Your task to perform on an android device: Show me productivity apps on the Play Store Image 0: 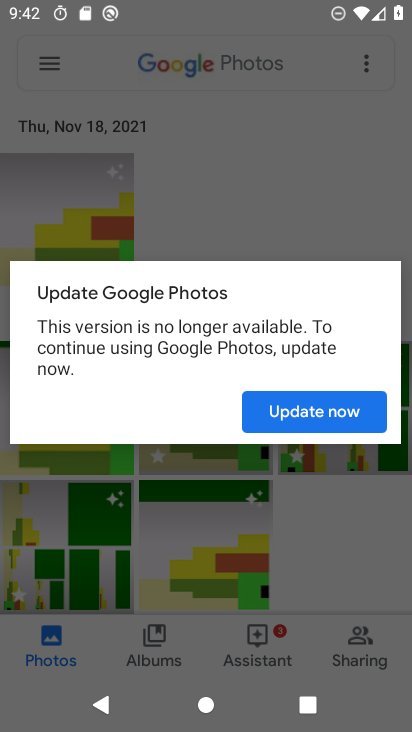
Step 0: press home button
Your task to perform on an android device: Show me productivity apps on the Play Store Image 1: 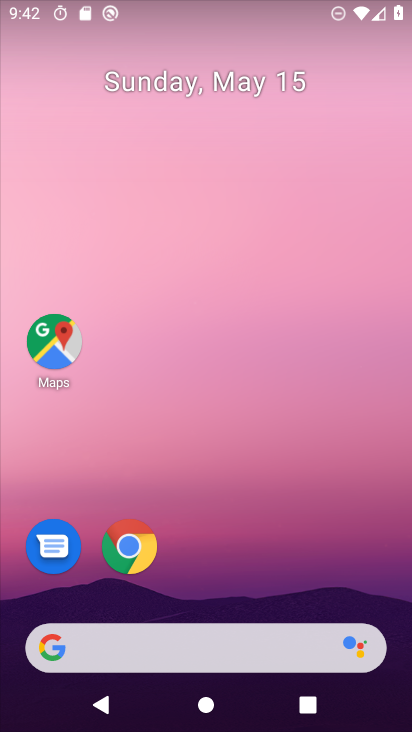
Step 1: drag from (258, 540) to (246, 78)
Your task to perform on an android device: Show me productivity apps on the Play Store Image 2: 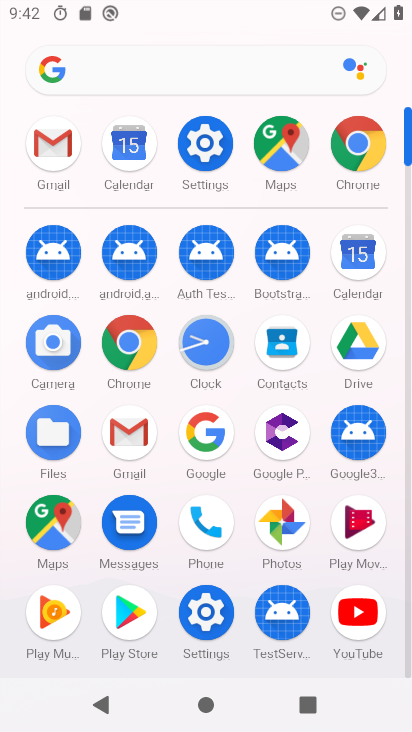
Step 2: click (132, 622)
Your task to perform on an android device: Show me productivity apps on the Play Store Image 3: 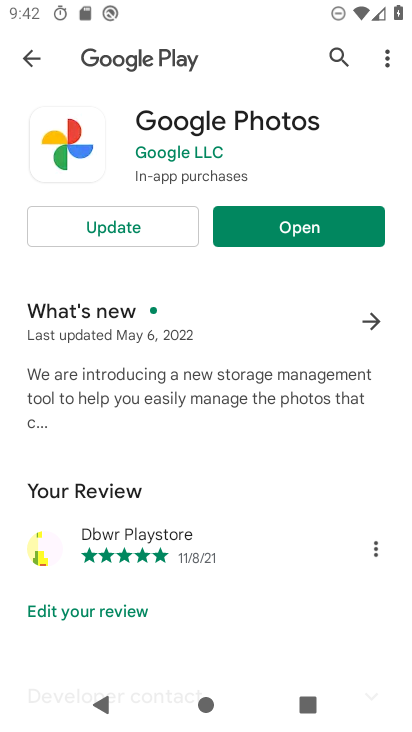
Step 3: click (37, 54)
Your task to perform on an android device: Show me productivity apps on the Play Store Image 4: 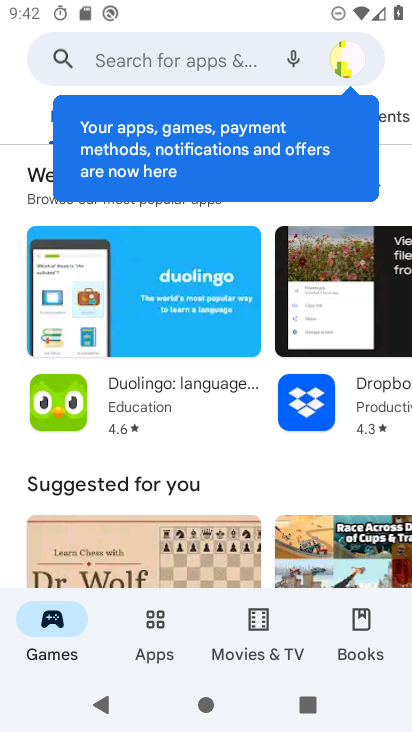
Step 4: click (143, 620)
Your task to perform on an android device: Show me productivity apps on the Play Store Image 5: 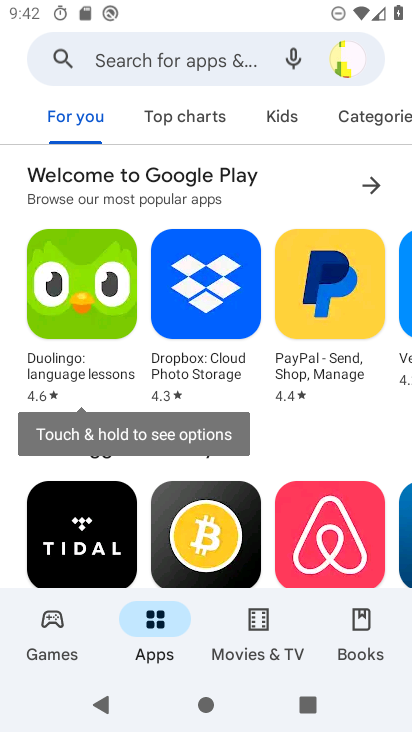
Step 5: click (354, 104)
Your task to perform on an android device: Show me productivity apps on the Play Store Image 6: 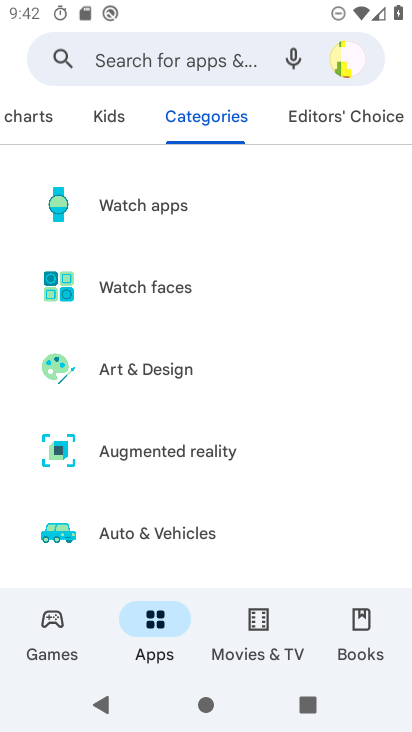
Step 6: drag from (225, 486) to (293, 134)
Your task to perform on an android device: Show me productivity apps on the Play Store Image 7: 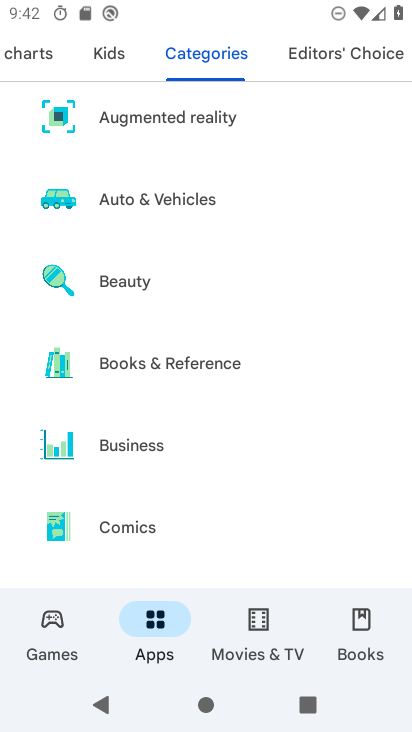
Step 7: drag from (221, 549) to (171, 172)
Your task to perform on an android device: Show me productivity apps on the Play Store Image 8: 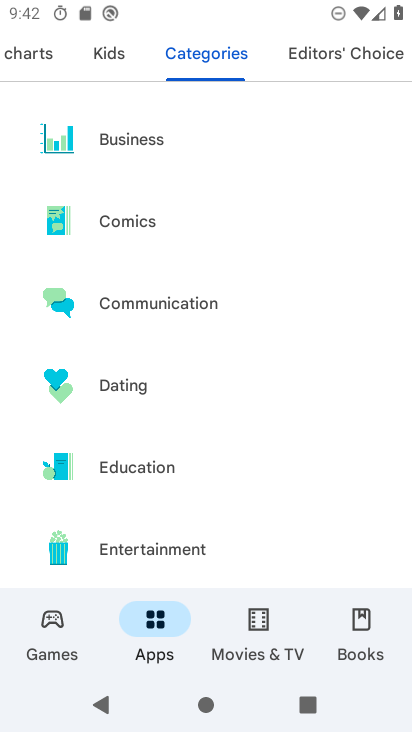
Step 8: drag from (195, 480) to (193, 173)
Your task to perform on an android device: Show me productivity apps on the Play Store Image 9: 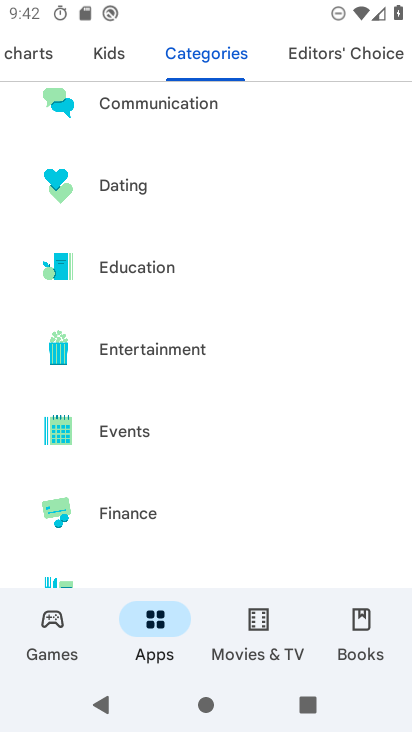
Step 9: drag from (194, 480) to (220, 121)
Your task to perform on an android device: Show me productivity apps on the Play Store Image 10: 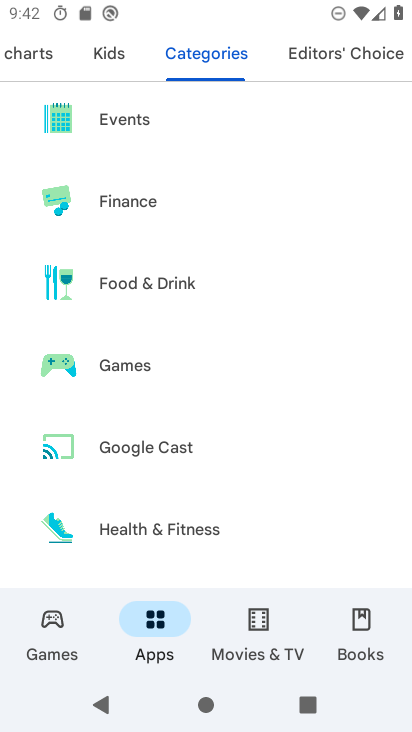
Step 10: drag from (205, 462) to (242, 158)
Your task to perform on an android device: Show me productivity apps on the Play Store Image 11: 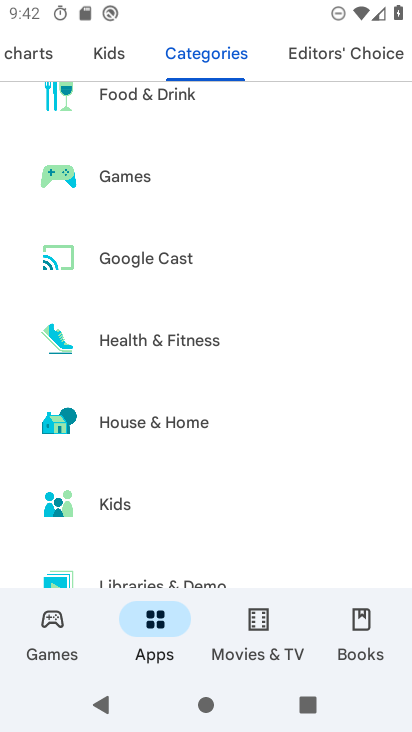
Step 11: drag from (213, 479) to (200, 156)
Your task to perform on an android device: Show me productivity apps on the Play Store Image 12: 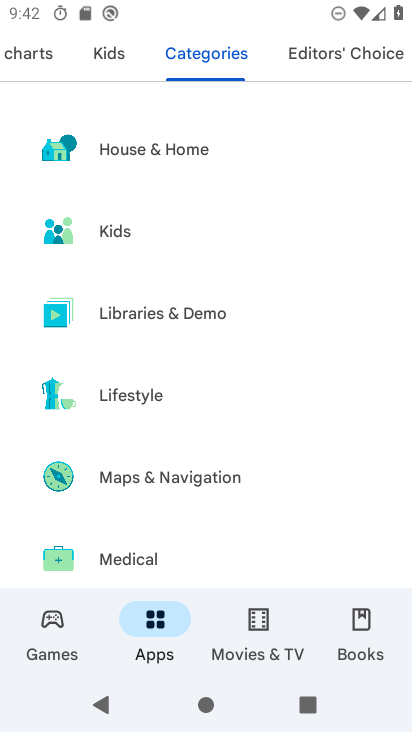
Step 12: drag from (218, 455) to (181, 138)
Your task to perform on an android device: Show me productivity apps on the Play Store Image 13: 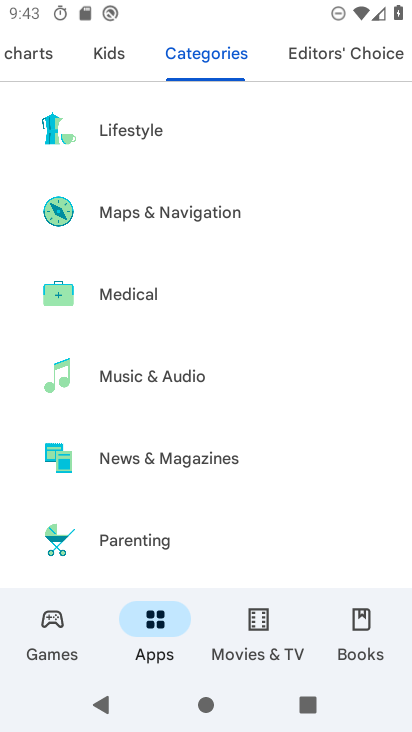
Step 13: drag from (248, 486) to (227, 162)
Your task to perform on an android device: Show me productivity apps on the Play Store Image 14: 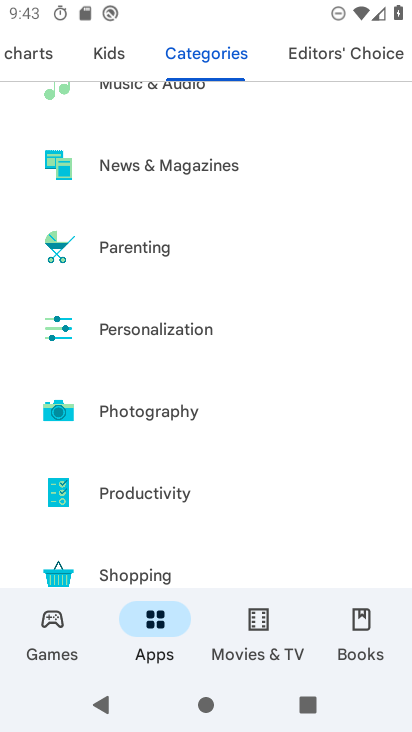
Step 14: click (188, 490)
Your task to perform on an android device: Show me productivity apps on the Play Store Image 15: 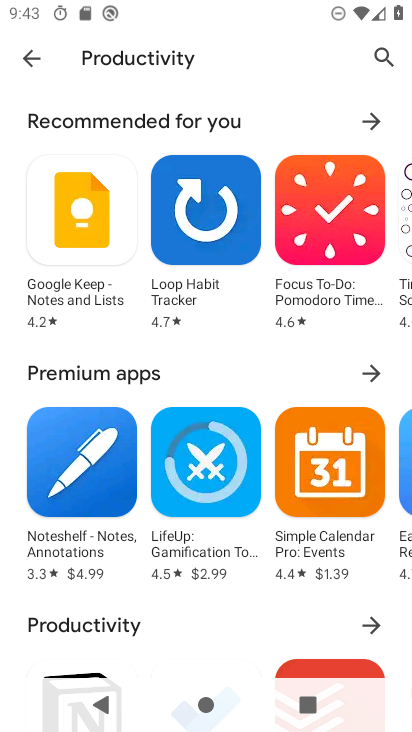
Step 15: task complete